Your task to perform on an android device: Check out the new nike air max 2020. Image 0: 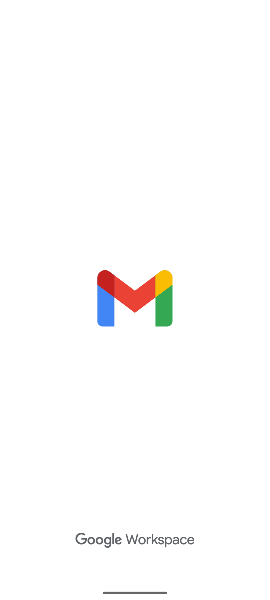
Step 0: press home button
Your task to perform on an android device: Check out the new nike air max 2020. Image 1: 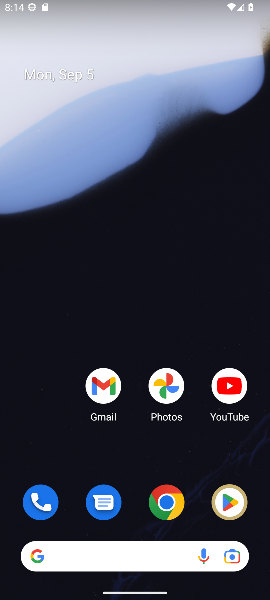
Step 1: drag from (183, 318) to (163, 111)
Your task to perform on an android device: Check out the new nike air max 2020. Image 2: 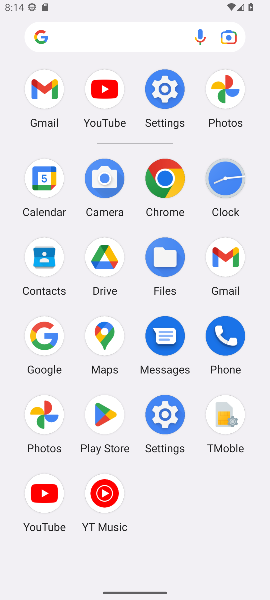
Step 2: click (51, 339)
Your task to perform on an android device: Check out the new nike air max 2020. Image 3: 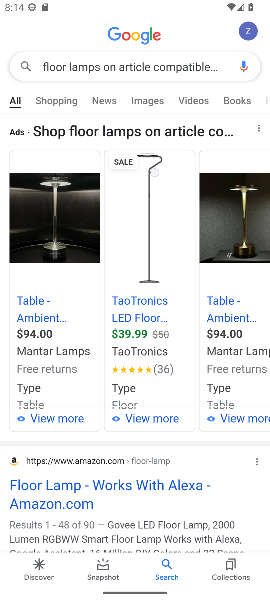
Step 3: press back button
Your task to perform on an android device: Check out the new nike air max 2020. Image 4: 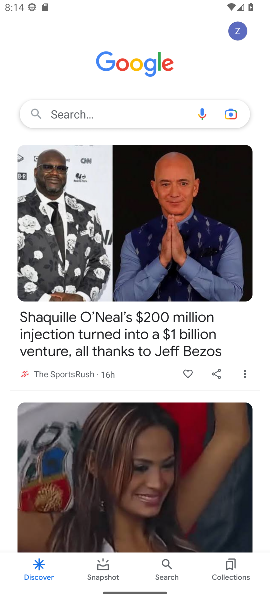
Step 4: click (102, 110)
Your task to perform on an android device: Check out the new nike air max 2020. Image 5: 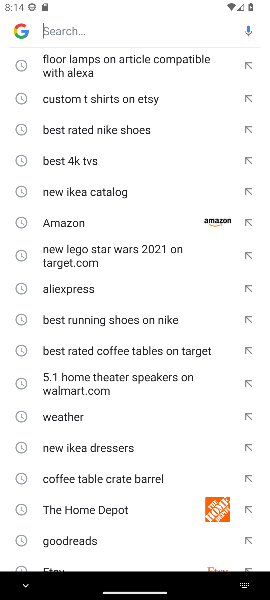
Step 5: type "new nike air max 2020"
Your task to perform on an android device: Check out the new nike air max 2020. Image 6: 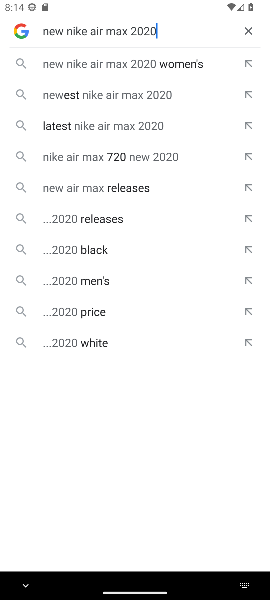
Step 6: click (109, 136)
Your task to perform on an android device: Check out the new nike air max 2020. Image 7: 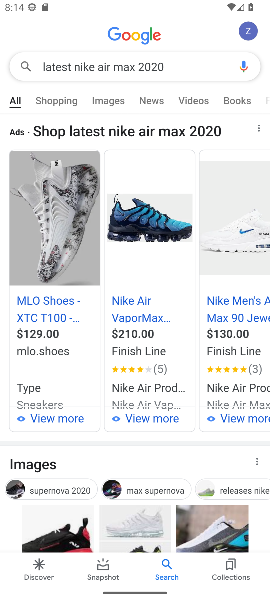
Step 7: task complete